Your task to perform on an android device: Open sound settings Image 0: 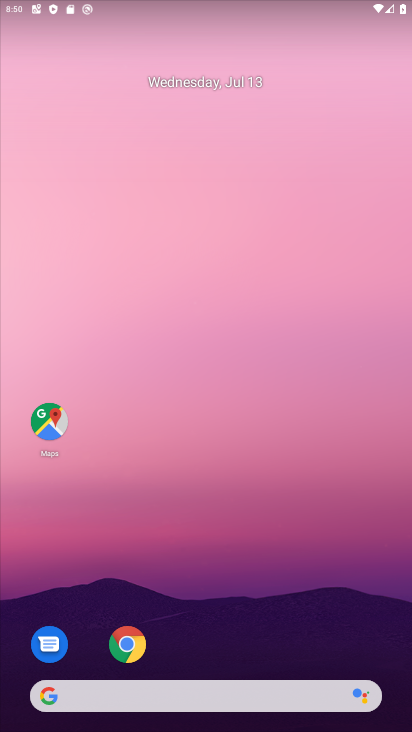
Step 0: drag from (224, 638) to (221, 121)
Your task to perform on an android device: Open sound settings Image 1: 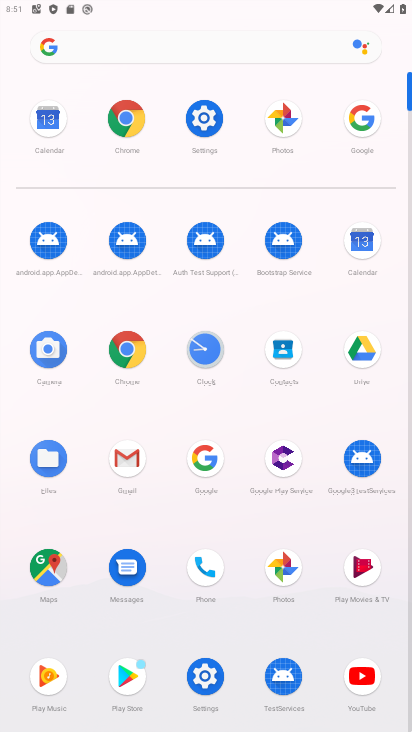
Step 1: click (204, 116)
Your task to perform on an android device: Open sound settings Image 2: 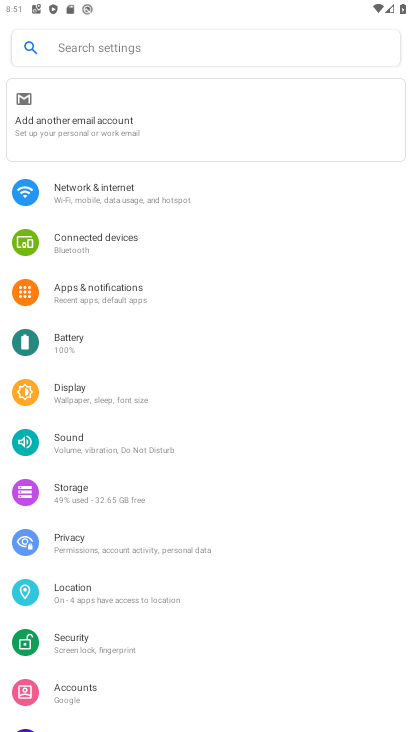
Step 2: task complete